Your task to perform on an android device: find photos in the google photos app Image 0: 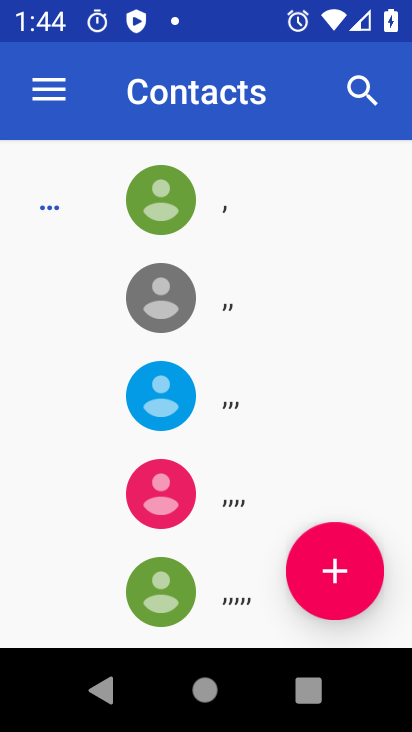
Step 0: press home button
Your task to perform on an android device: find photos in the google photos app Image 1: 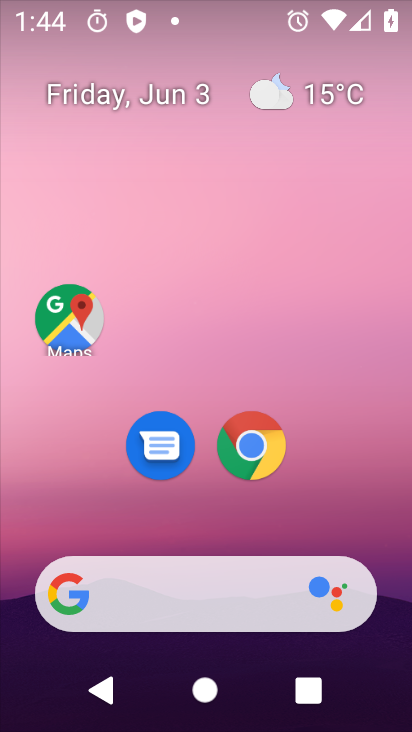
Step 1: drag from (217, 509) to (237, 27)
Your task to perform on an android device: find photos in the google photos app Image 2: 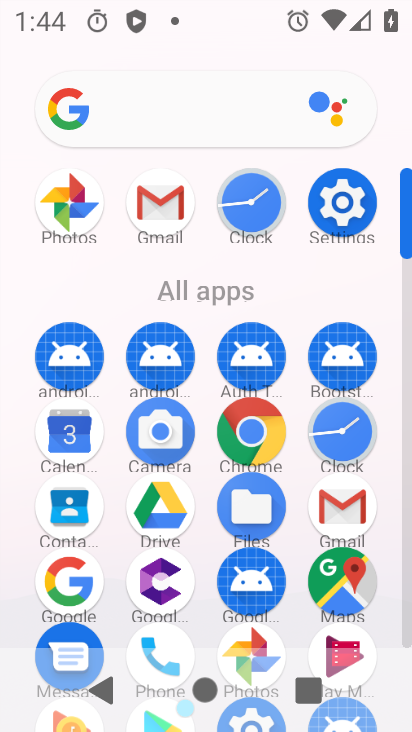
Step 2: click (78, 196)
Your task to perform on an android device: find photos in the google photos app Image 3: 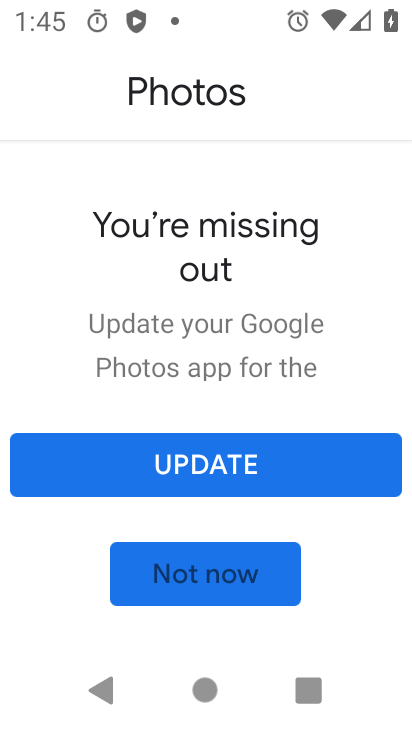
Step 3: click (194, 555)
Your task to perform on an android device: find photos in the google photos app Image 4: 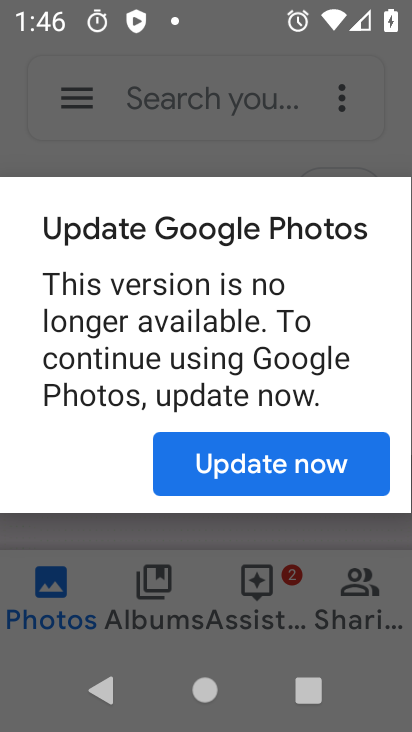
Step 4: click (242, 457)
Your task to perform on an android device: find photos in the google photos app Image 5: 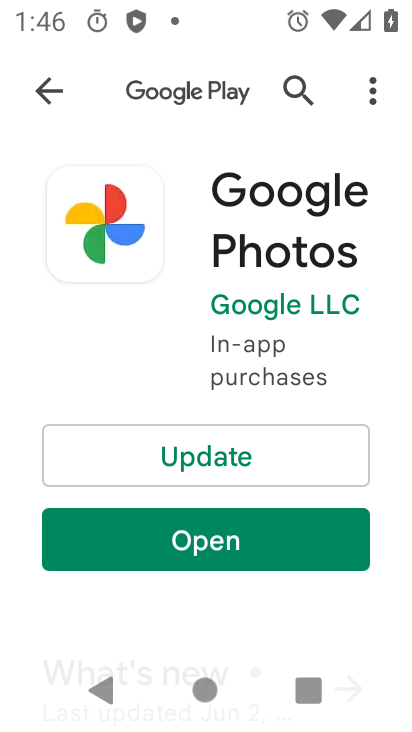
Step 5: click (264, 549)
Your task to perform on an android device: find photos in the google photos app Image 6: 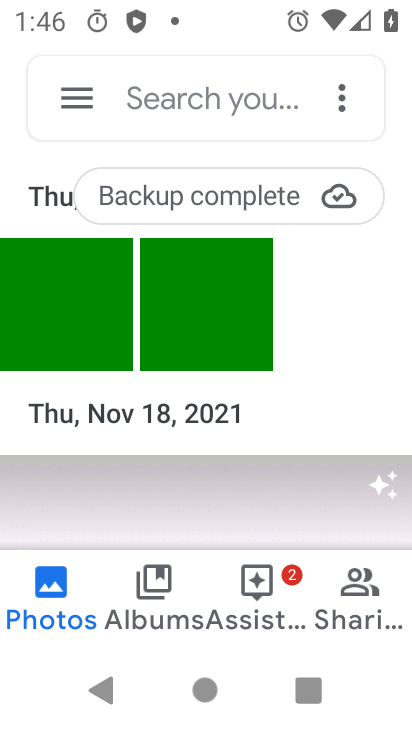
Step 6: task complete